Your task to perform on an android device: Go to privacy settings Image 0: 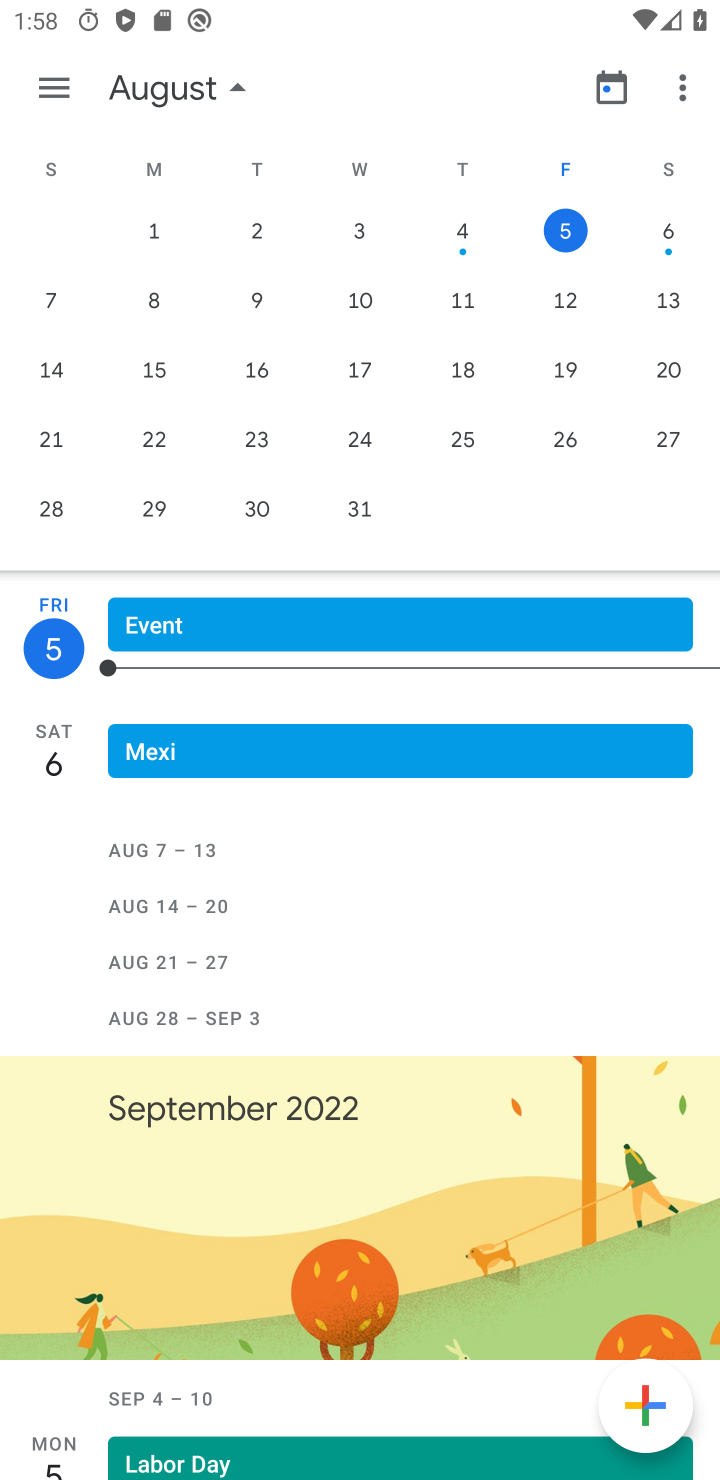
Step 0: press home button
Your task to perform on an android device: Go to privacy settings Image 1: 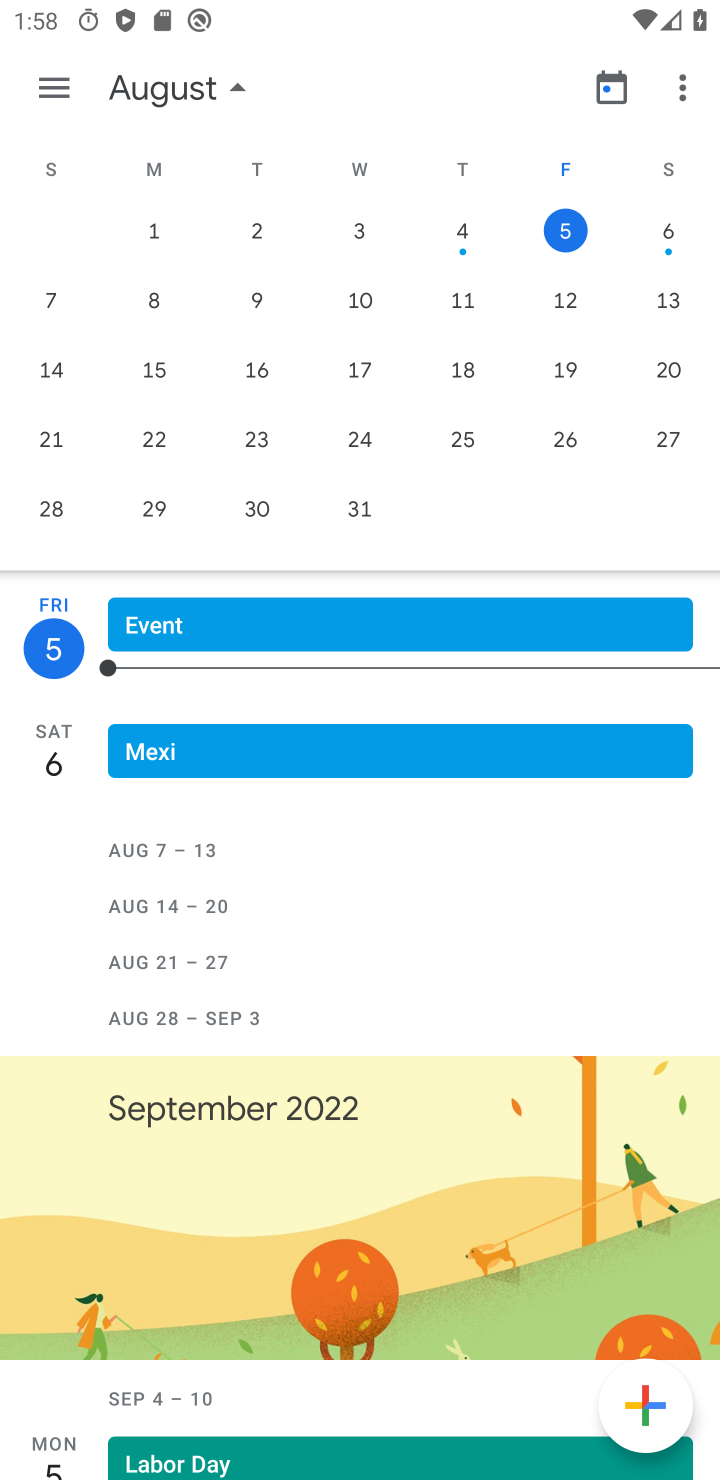
Step 1: click (619, 614)
Your task to perform on an android device: Go to privacy settings Image 2: 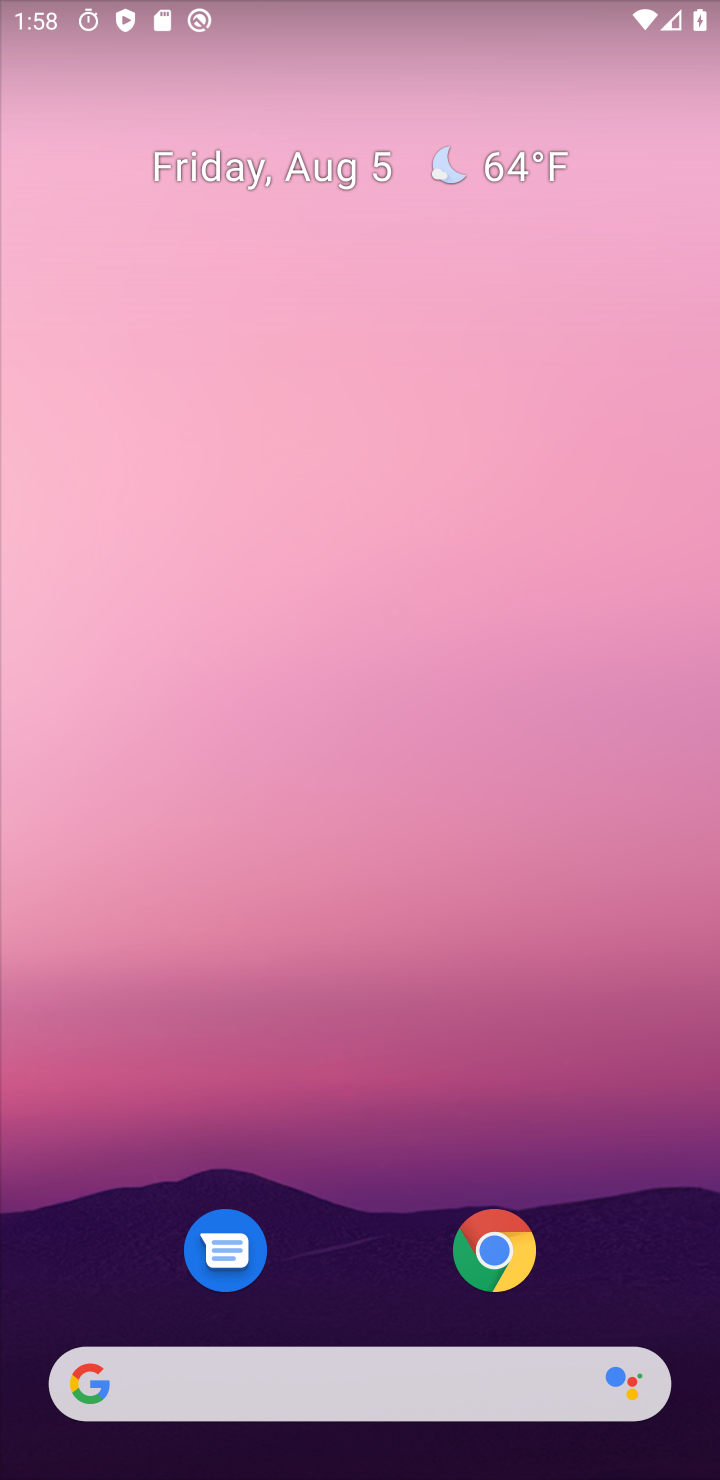
Step 2: drag from (330, 1160) to (364, 518)
Your task to perform on an android device: Go to privacy settings Image 3: 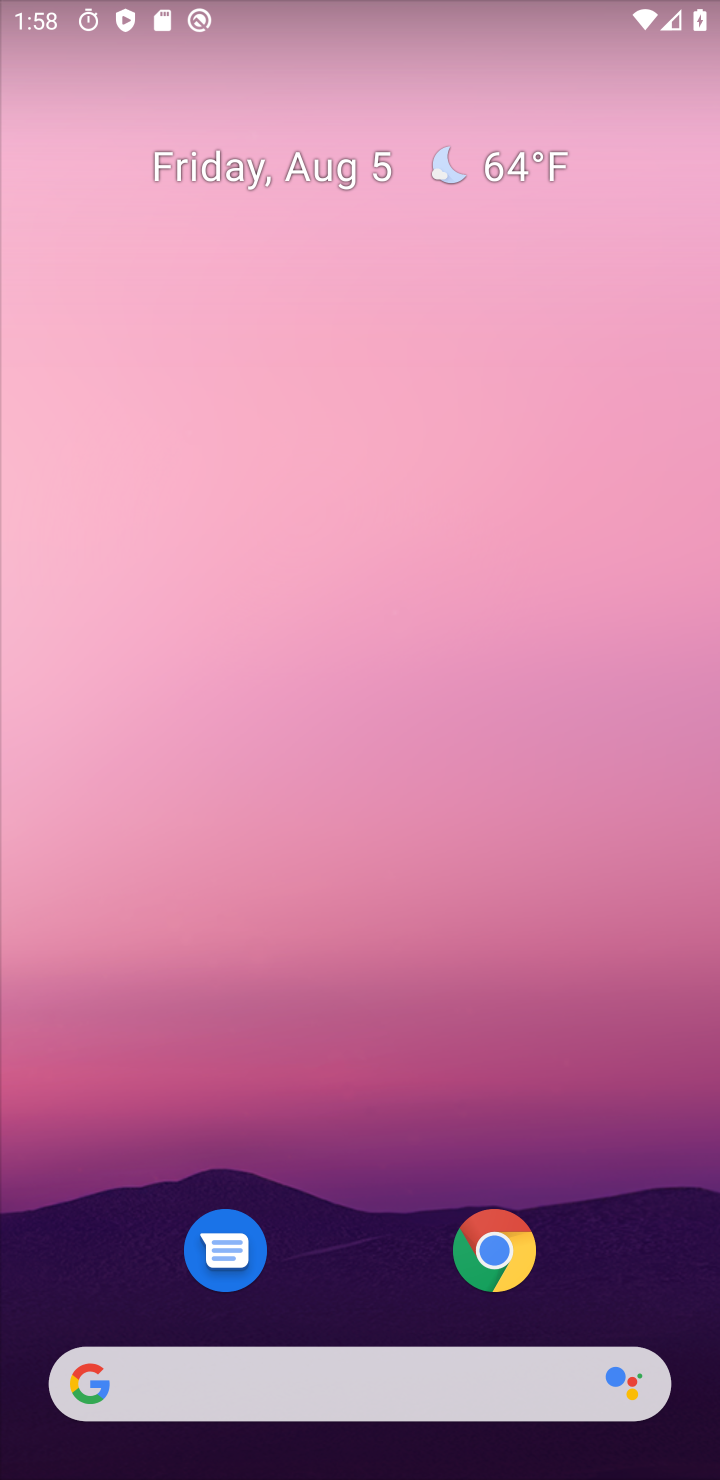
Step 3: drag from (378, 1117) to (570, 415)
Your task to perform on an android device: Go to privacy settings Image 4: 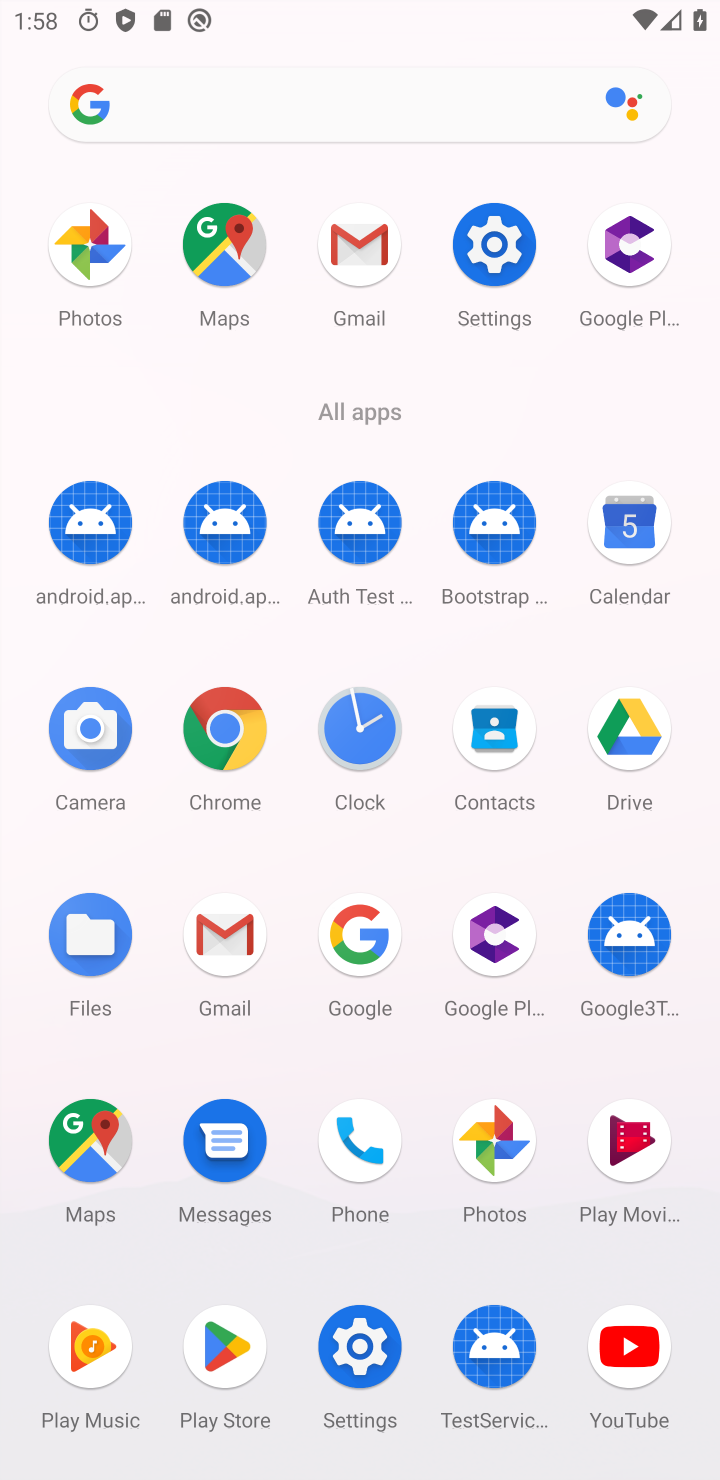
Step 4: click (499, 242)
Your task to perform on an android device: Go to privacy settings Image 5: 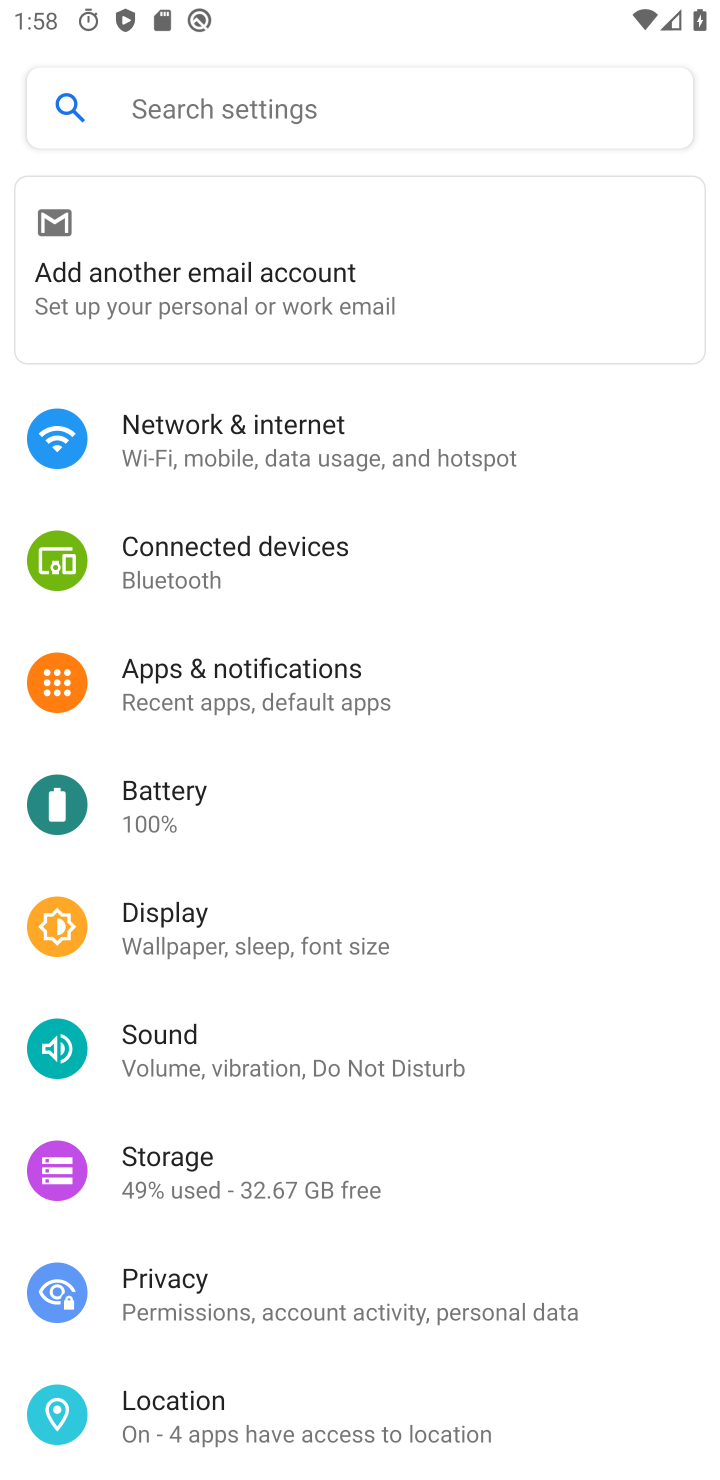
Step 5: click (193, 1268)
Your task to perform on an android device: Go to privacy settings Image 6: 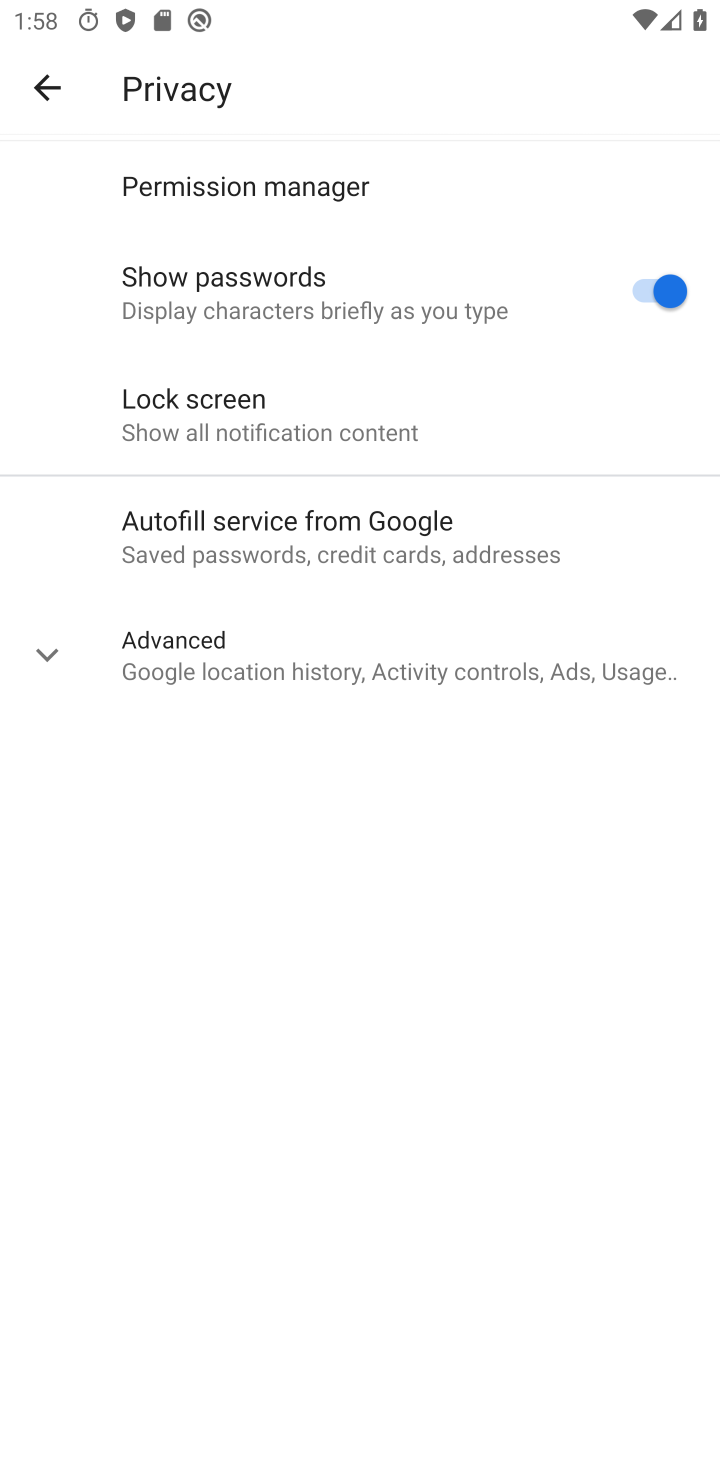
Step 6: task complete